Your task to perform on an android device: Go to Google maps Image 0: 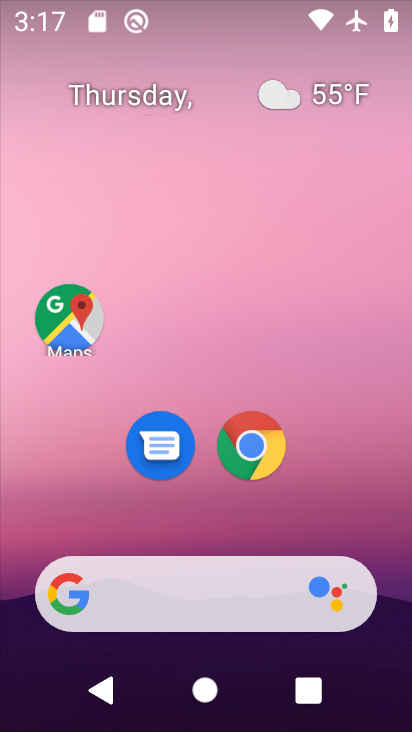
Step 0: click (71, 333)
Your task to perform on an android device: Go to Google maps Image 1: 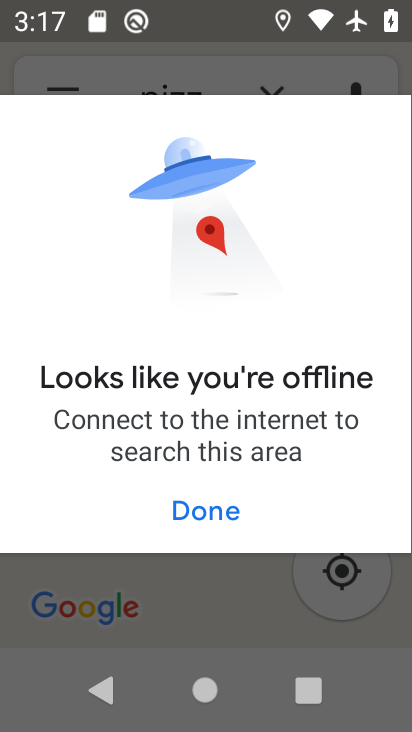
Step 1: task complete